Your task to perform on an android device: create a new album in the google photos Image 0: 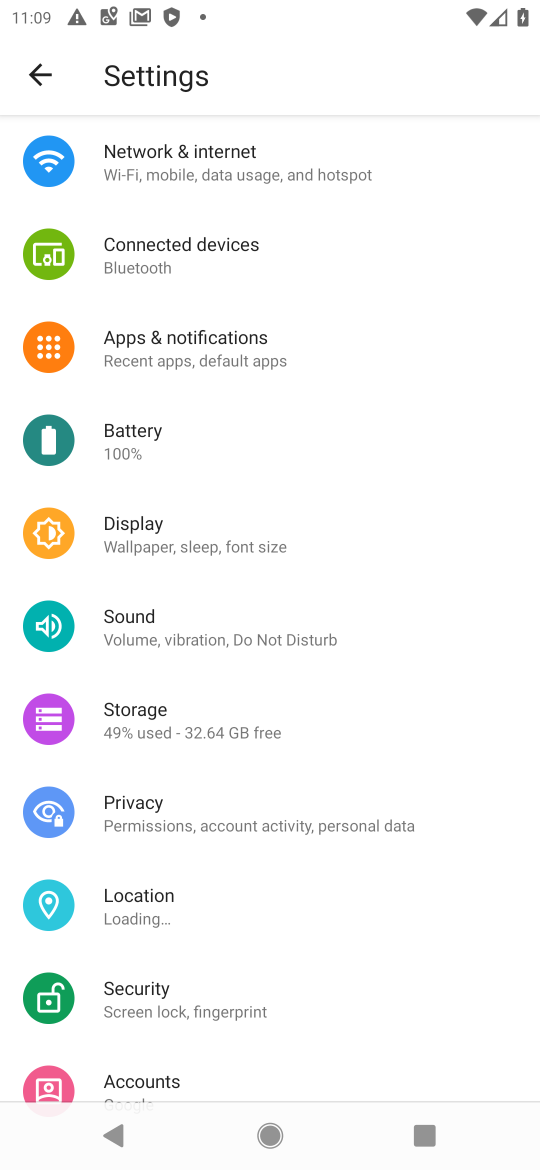
Step 0: press home button
Your task to perform on an android device: create a new album in the google photos Image 1: 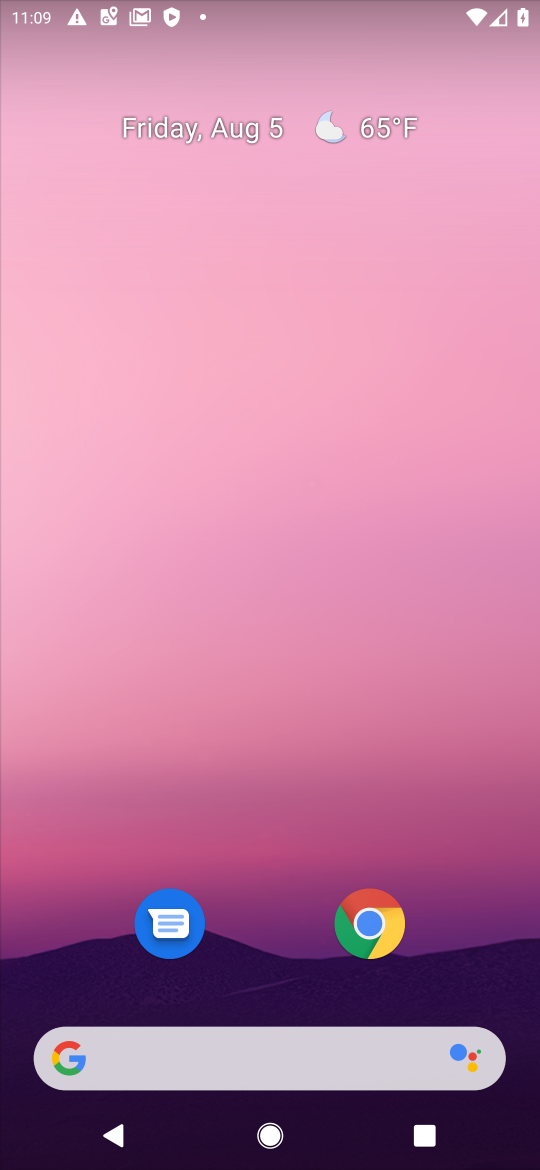
Step 1: drag from (221, 1074) to (265, 176)
Your task to perform on an android device: create a new album in the google photos Image 2: 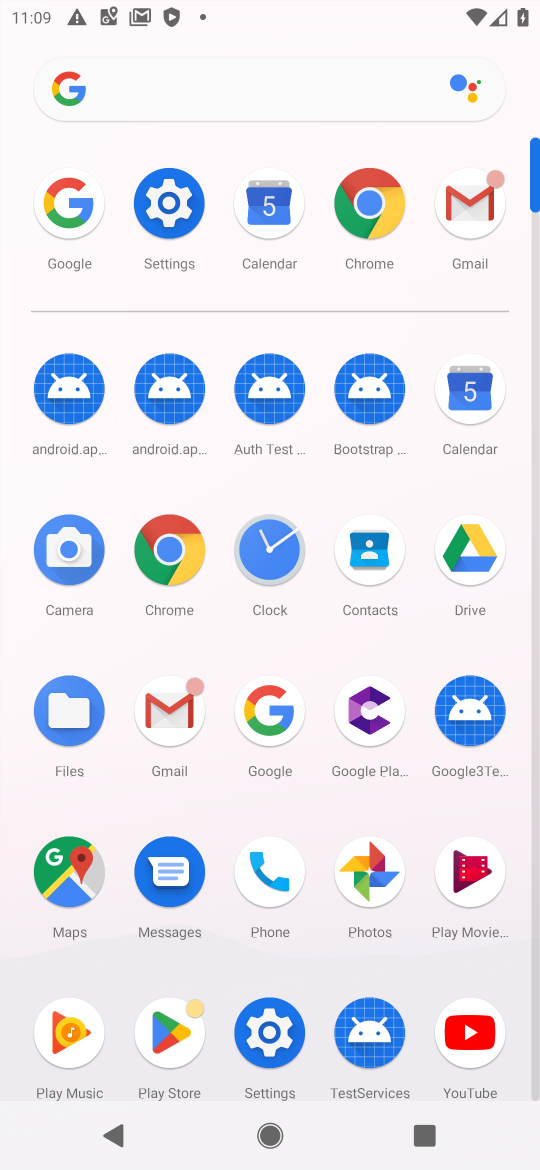
Step 2: click (384, 874)
Your task to perform on an android device: create a new album in the google photos Image 3: 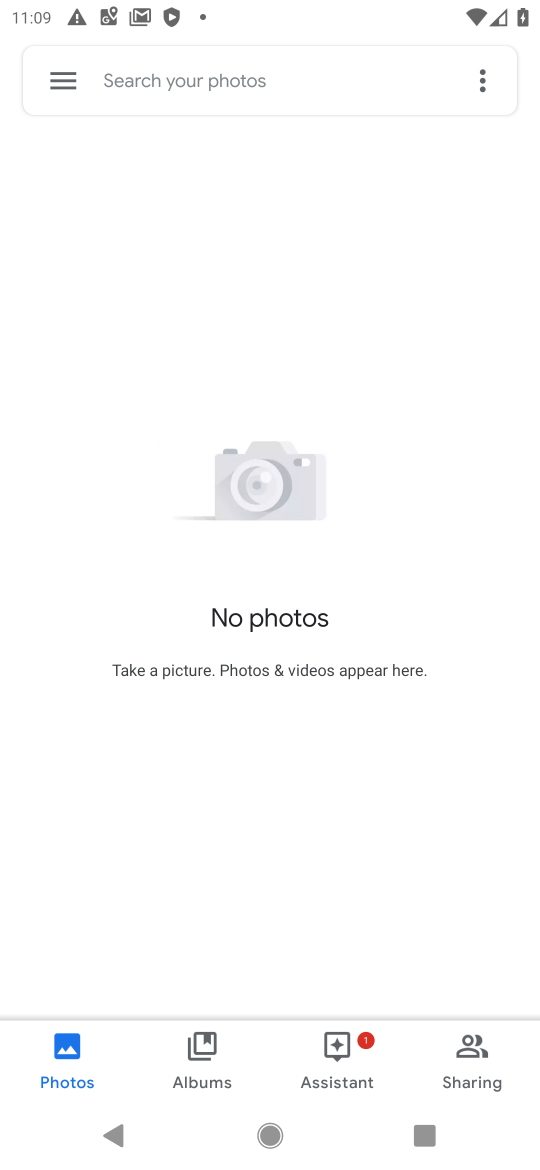
Step 3: task complete